Your task to perform on an android device: turn off priority inbox in the gmail app Image 0: 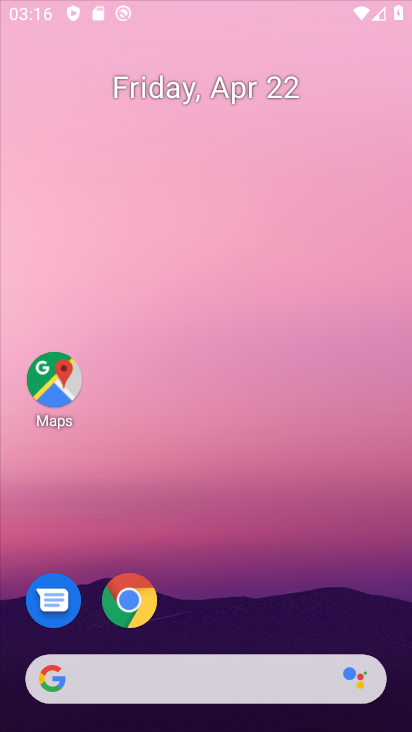
Step 0: drag from (248, 506) to (252, 117)
Your task to perform on an android device: turn off priority inbox in the gmail app Image 1: 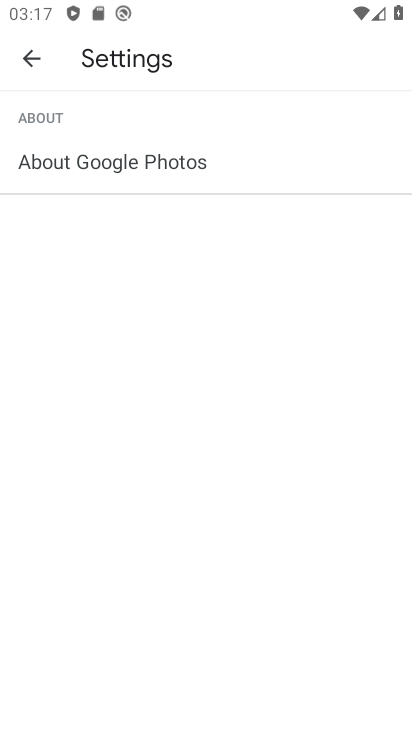
Step 1: click (30, 58)
Your task to perform on an android device: turn off priority inbox in the gmail app Image 2: 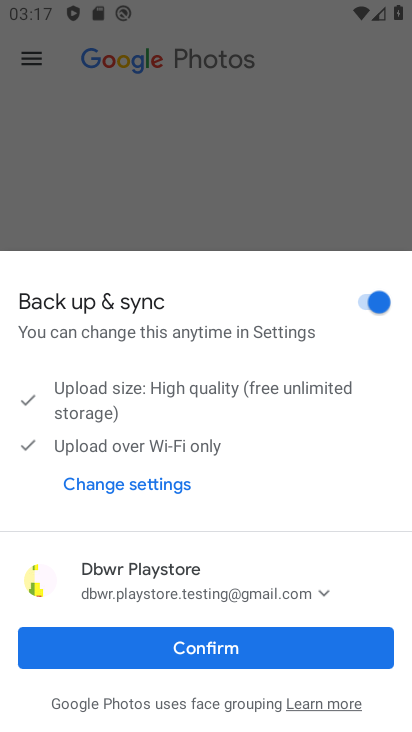
Step 2: press back button
Your task to perform on an android device: turn off priority inbox in the gmail app Image 3: 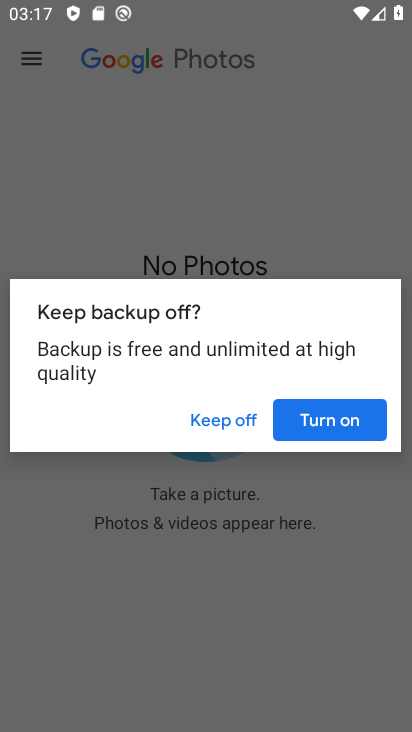
Step 3: press home button
Your task to perform on an android device: turn off priority inbox in the gmail app Image 4: 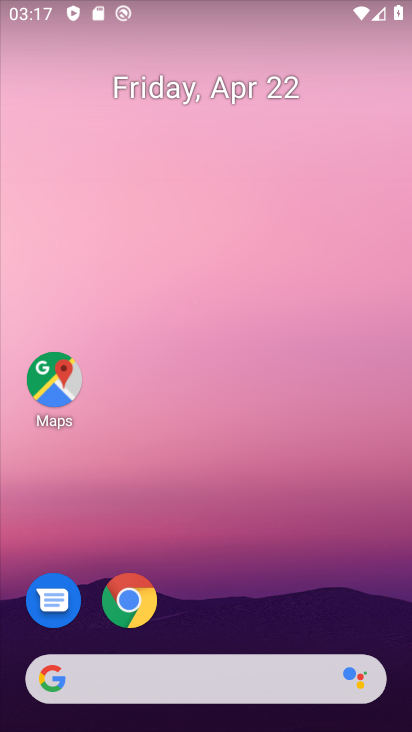
Step 4: click (278, 91)
Your task to perform on an android device: turn off priority inbox in the gmail app Image 5: 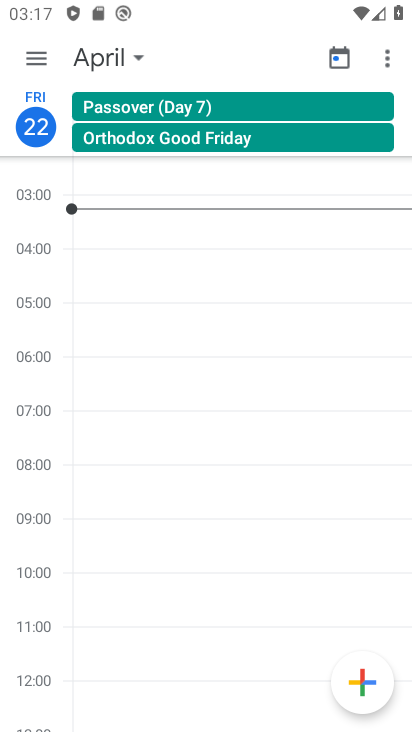
Step 5: press home button
Your task to perform on an android device: turn off priority inbox in the gmail app Image 6: 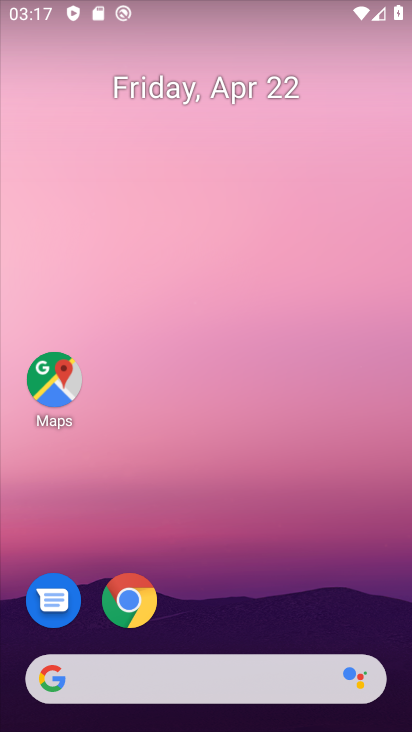
Step 6: click (214, 146)
Your task to perform on an android device: turn off priority inbox in the gmail app Image 7: 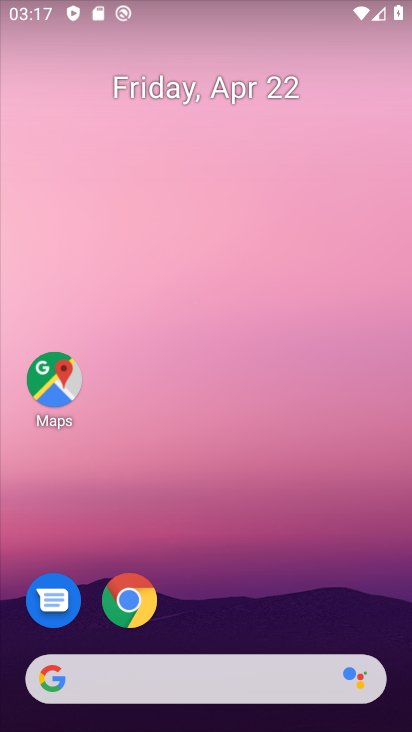
Step 7: drag from (240, 559) to (174, 113)
Your task to perform on an android device: turn off priority inbox in the gmail app Image 8: 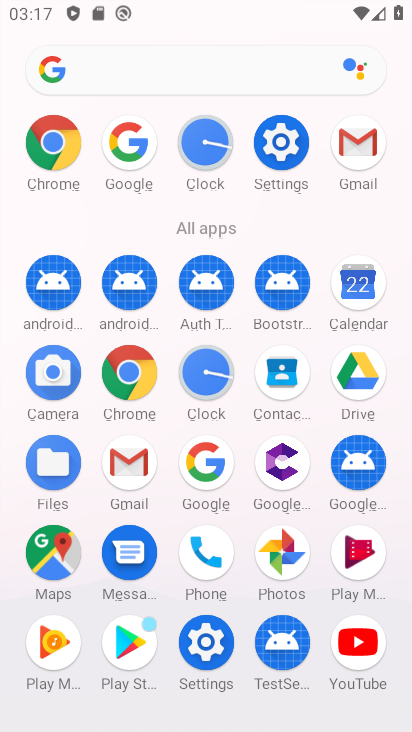
Step 8: click (363, 151)
Your task to perform on an android device: turn off priority inbox in the gmail app Image 9: 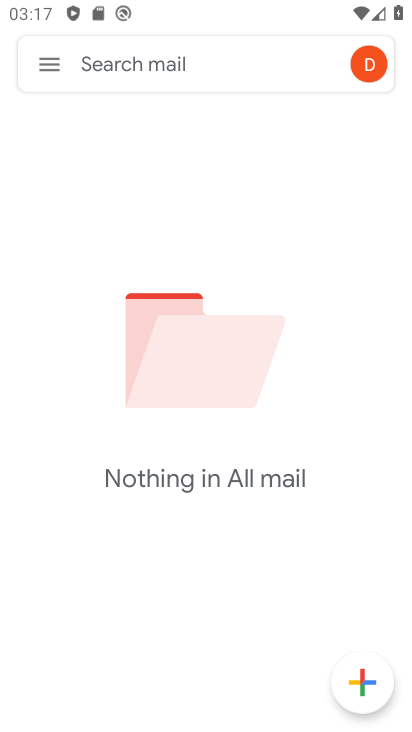
Step 9: click (55, 69)
Your task to perform on an android device: turn off priority inbox in the gmail app Image 10: 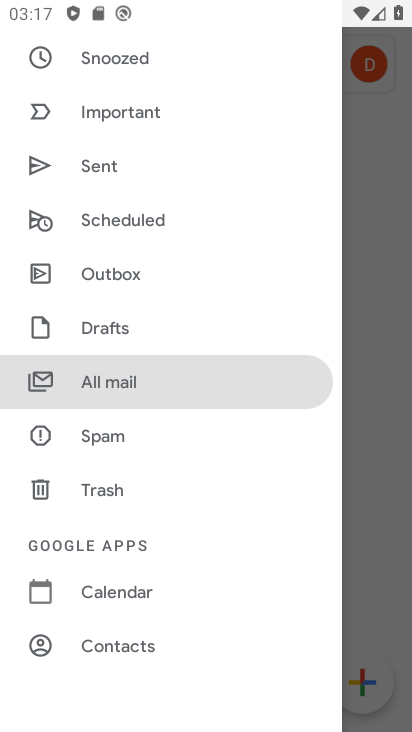
Step 10: drag from (129, 637) to (143, 261)
Your task to perform on an android device: turn off priority inbox in the gmail app Image 11: 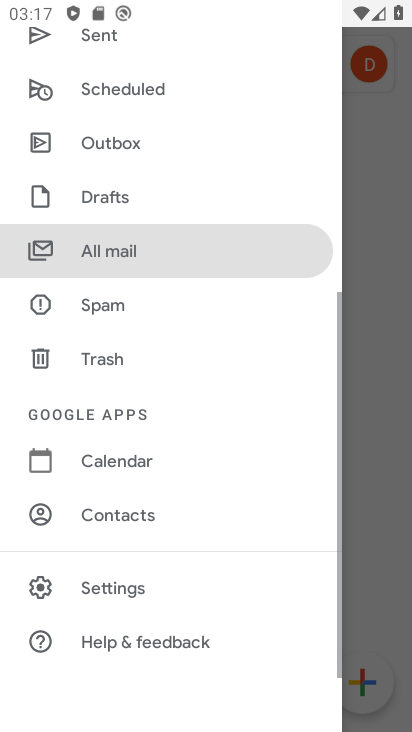
Step 11: click (97, 587)
Your task to perform on an android device: turn off priority inbox in the gmail app Image 12: 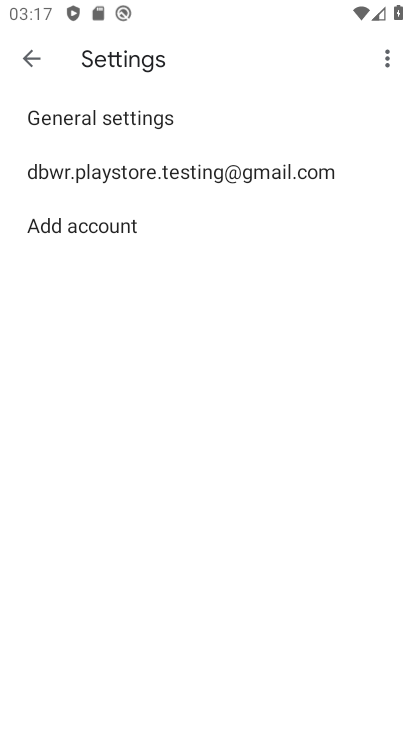
Step 12: click (109, 175)
Your task to perform on an android device: turn off priority inbox in the gmail app Image 13: 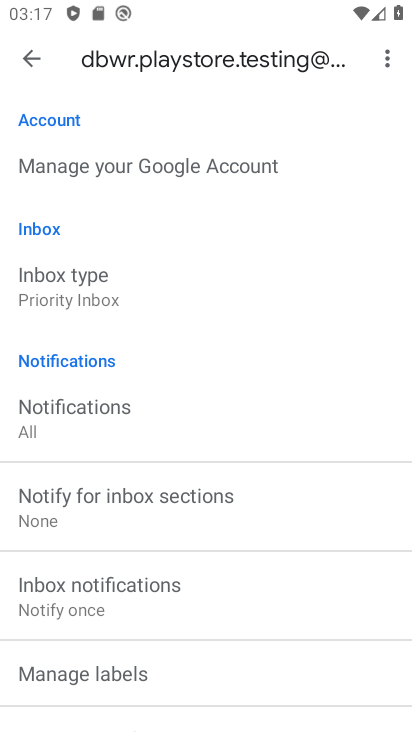
Step 13: click (63, 301)
Your task to perform on an android device: turn off priority inbox in the gmail app Image 14: 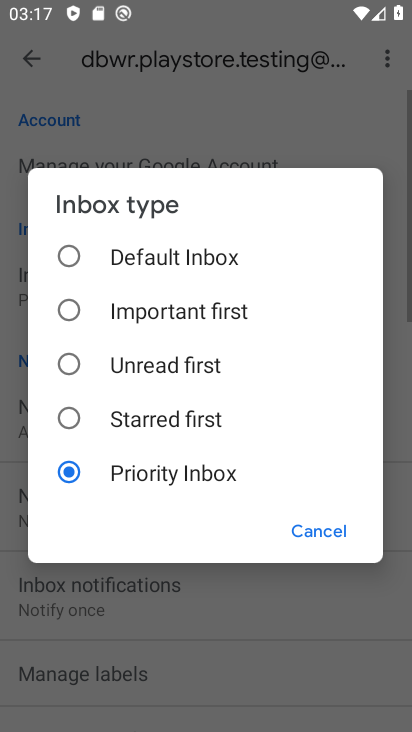
Step 14: click (57, 255)
Your task to perform on an android device: turn off priority inbox in the gmail app Image 15: 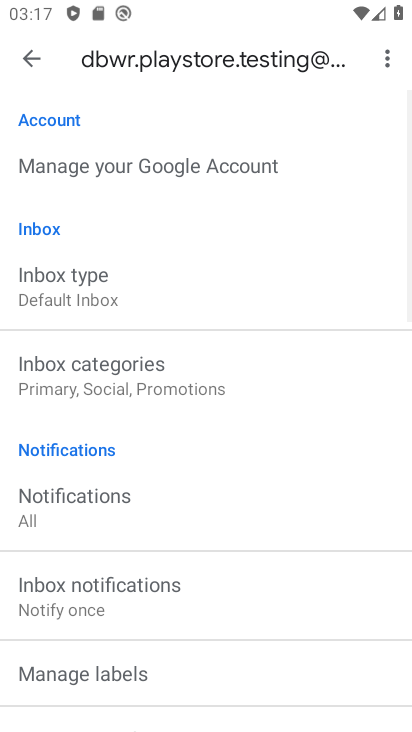
Step 15: task complete